Your task to perform on an android device: Open calendar and show me the second week of next month Image 0: 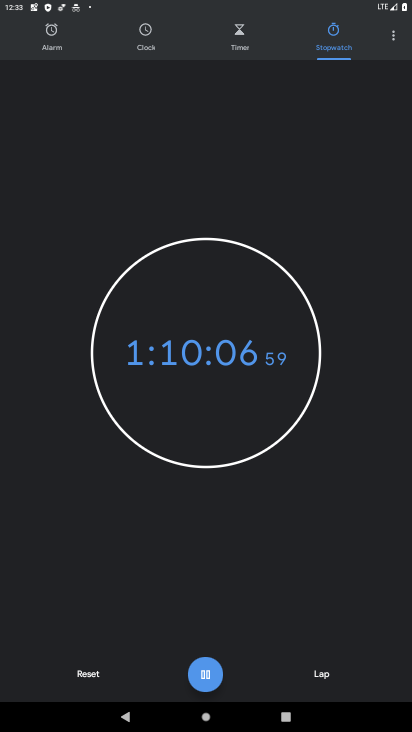
Step 0: press home button
Your task to perform on an android device: Open calendar and show me the second week of next month Image 1: 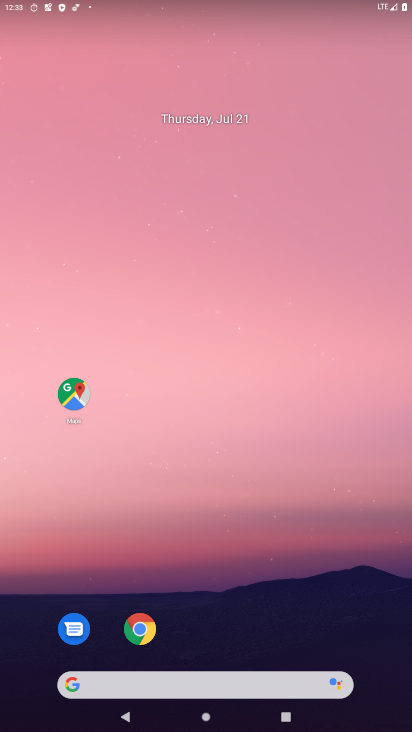
Step 1: drag from (240, 694) to (176, 0)
Your task to perform on an android device: Open calendar and show me the second week of next month Image 2: 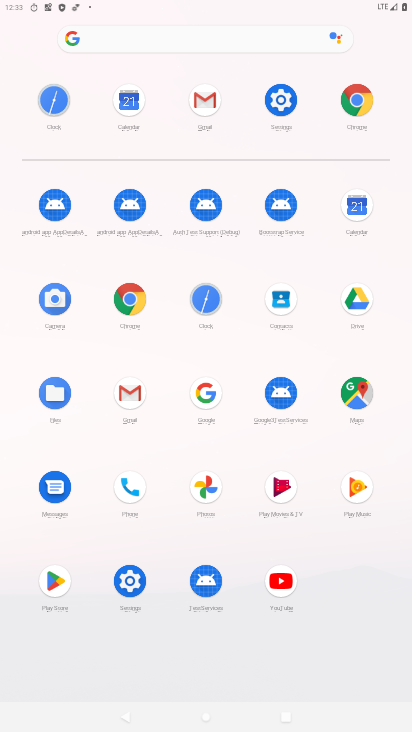
Step 2: click (367, 196)
Your task to perform on an android device: Open calendar and show me the second week of next month Image 3: 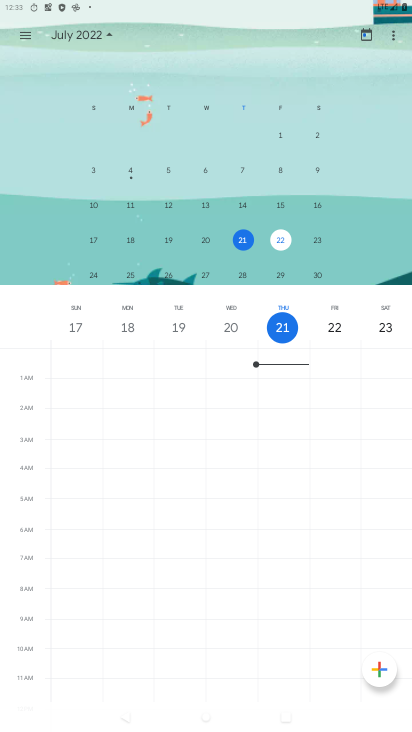
Step 3: drag from (320, 189) to (13, 204)
Your task to perform on an android device: Open calendar and show me the second week of next month Image 4: 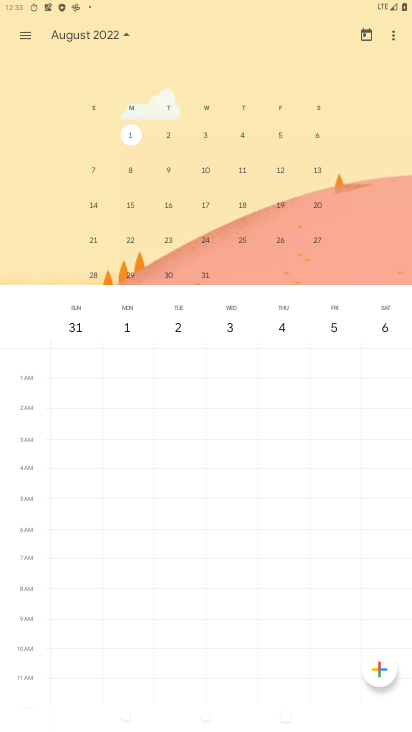
Step 4: click (205, 166)
Your task to perform on an android device: Open calendar and show me the second week of next month Image 5: 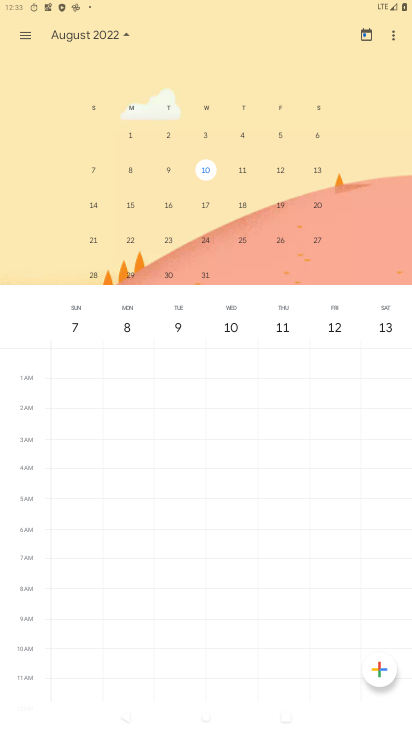
Step 5: task complete